Your task to perform on an android device: toggle sleep mode Image 0: 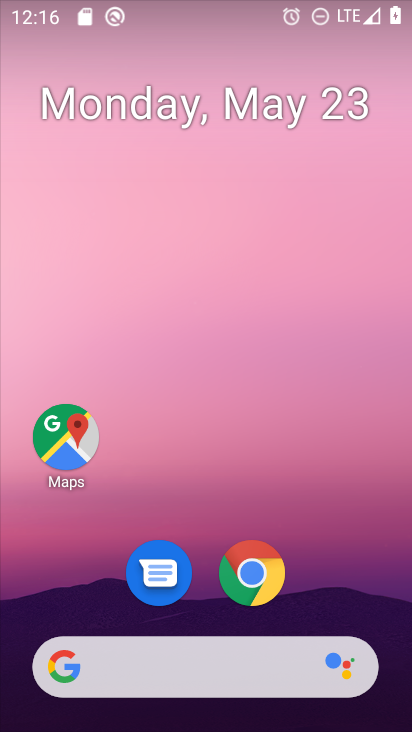
Step 0: drag from (316, 606) to (333, 20)
Your task to perform on an android device: toggle sleep mode Image 1: 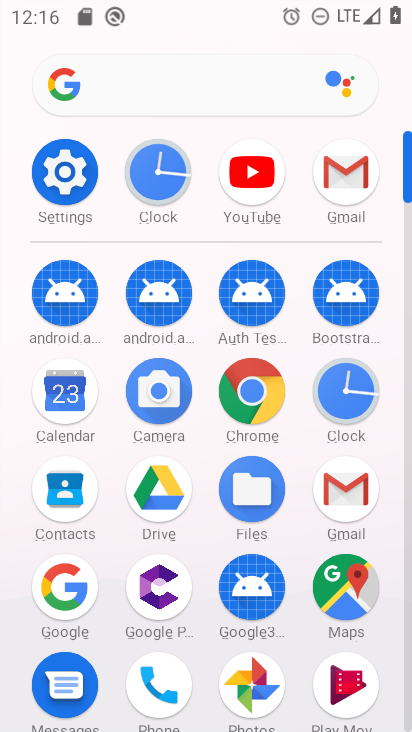
Step 1: click (69, 170)
Your task to perform on an android device: toggle sleep mode Image 2: 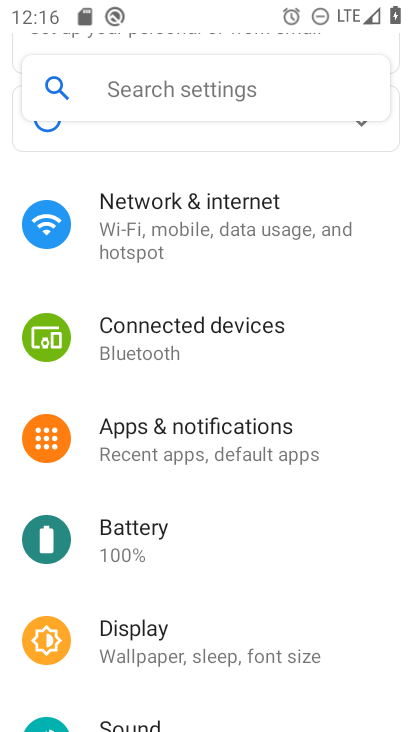
Step 2: click (195, 628)
Your task to perform on an android device: toggle sleep mode Image 3: 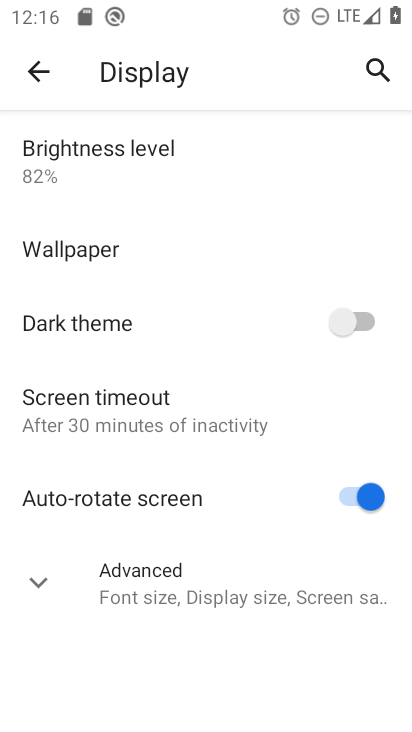
Step 3: click (218, 595)
Your task to perform on an android device: toggle sleep mode Image 4: 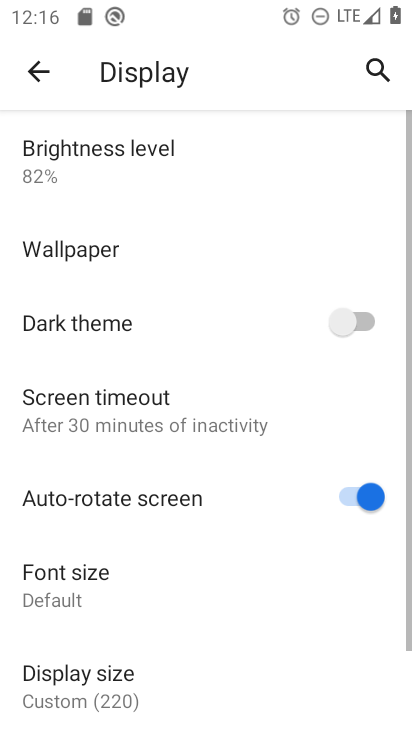
Step 4: drag from (195, 643) to (229, 255)
Your task to perform on an android device: toggle sleep mode Image 5: 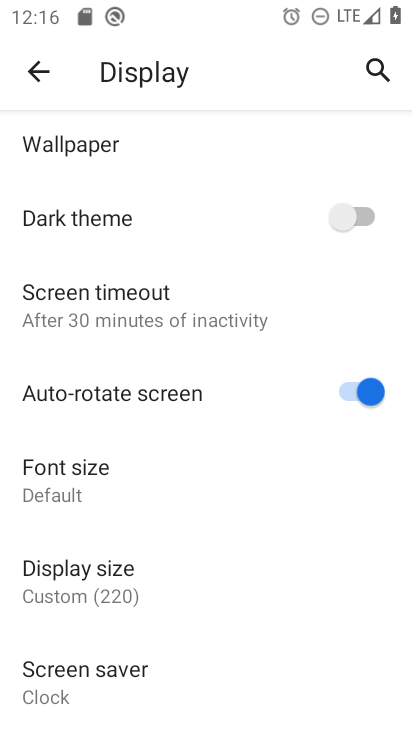
Step 5: click (47, 79)
Your task to perform on an android device: toggle sleep mode Image 6: 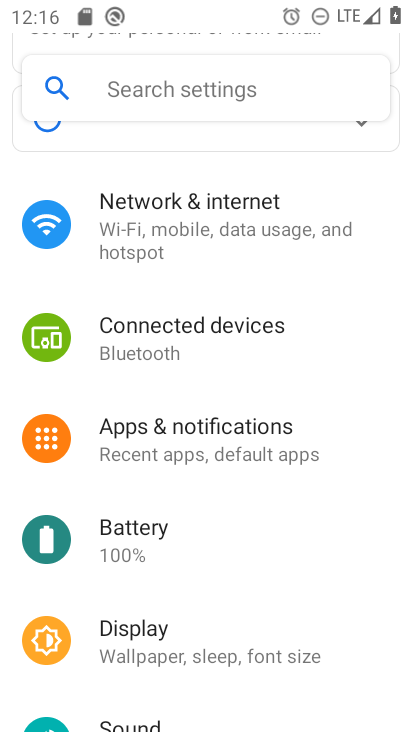
Step 6: task complete